Your task to perform on an android device: turn off translation in the chrome app Image 0: 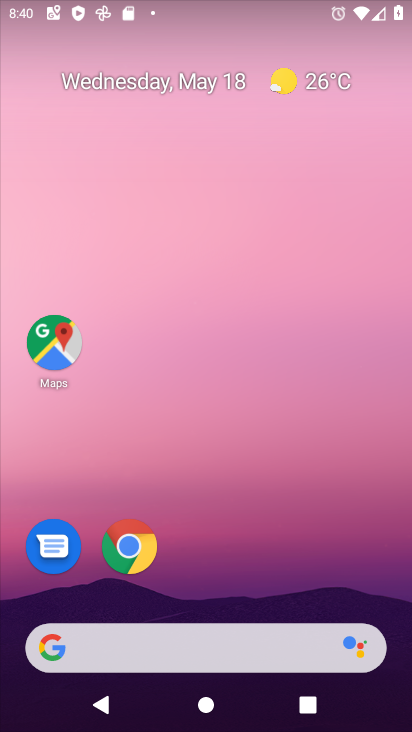
Step 0: drag from (397, 638) to (258, 6)
Your task to perform on an android device: turn off translation in the chrome app Image 1: 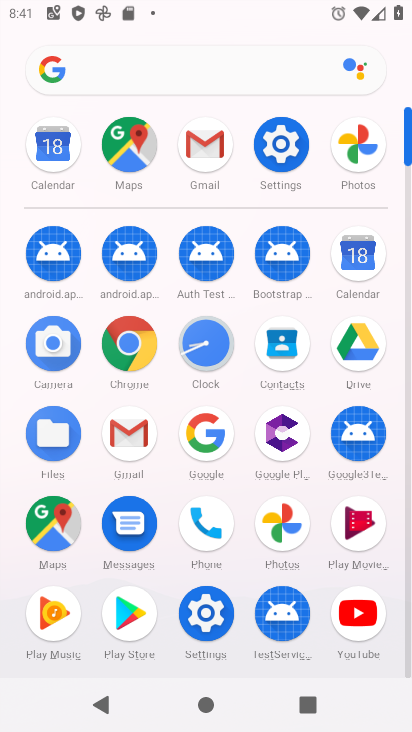
Step 1: click (115, 355)
Your task to perform on an android device: turn off translation in the chrome app Image 2: 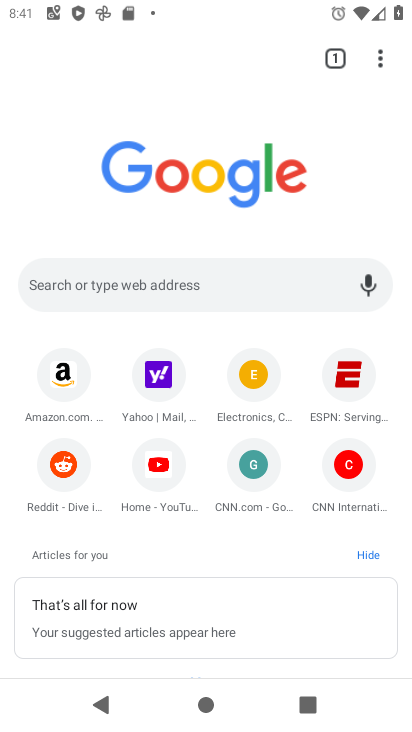
Step 2: click (386, 58)
Your task to perform on an android device: turn off translation in the chrome app Image 3: 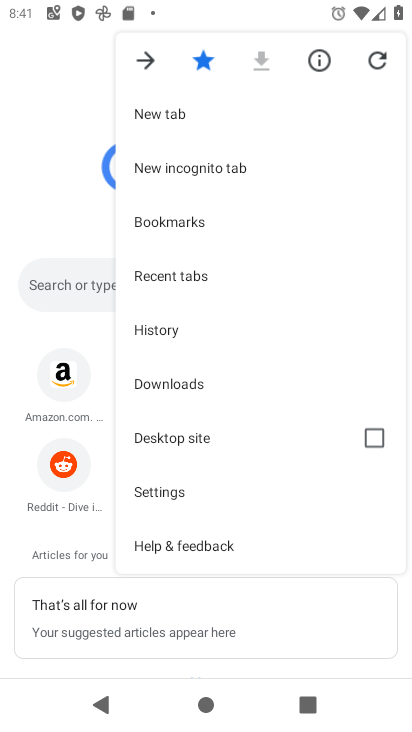
Step 3: click (184, 484)
Your task to perform on an android device: turn off translation in the chrome app Image 4: 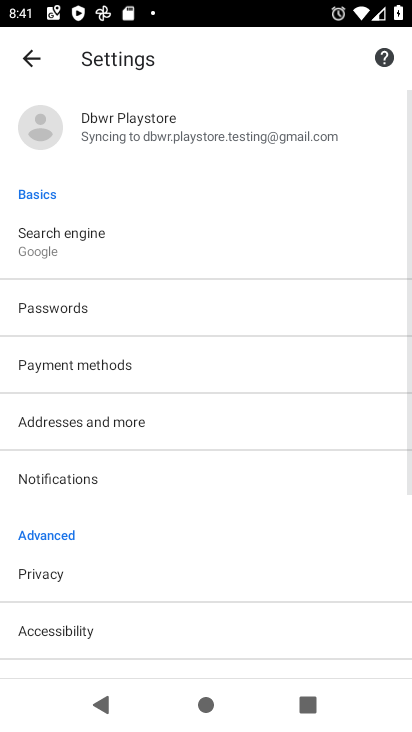
Step 4: drag from (42, 624) to (102, 260)
Your task to perform on an android device: turn off translation in the chrome app Image 5: 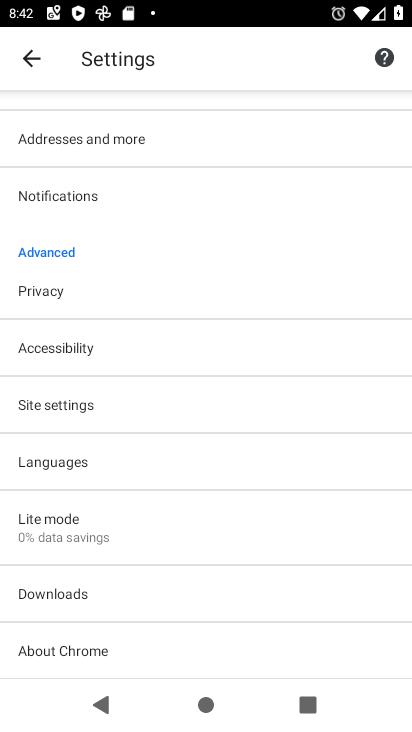
Step 5: click (88, 463)
Your task to perform on an android device: turn off translation in the chrome app Image 6: 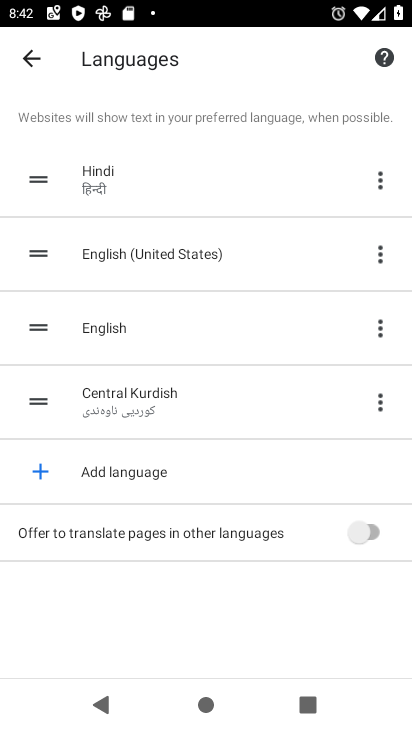
Step 6: task complete